Your task to perform on an android device: star an email in the gmail app Image 0: 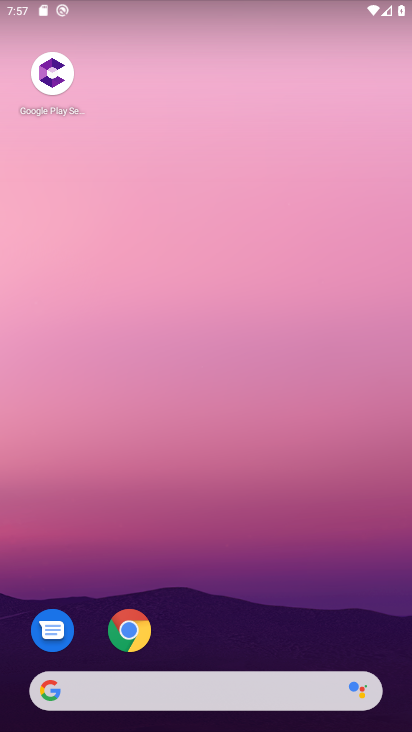
Step 0: drag from (188, 657) to (218, 256)
Your task to perform on an android device: star an email in the gmail app Image 1: 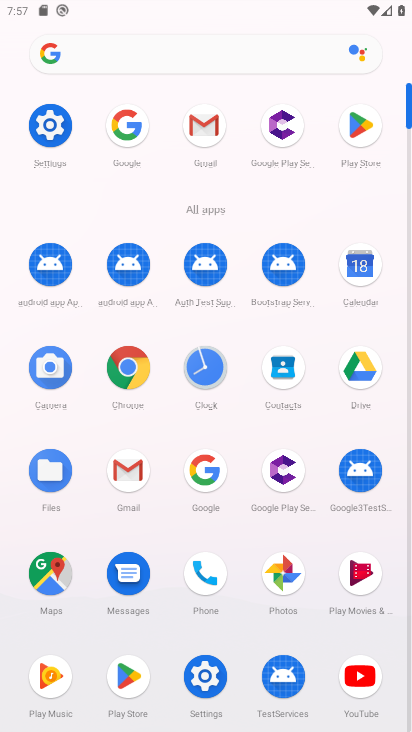
Step 1: click (203, 119)
Your task to perform on an android device: star an email in the gmail app Image 2: 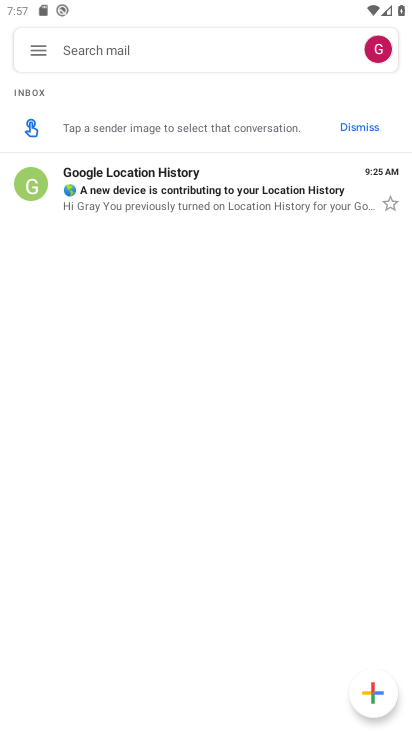
Step 2: click (386, 203)
Your task to perform on an android device: star an email in the gmail app Image 3: 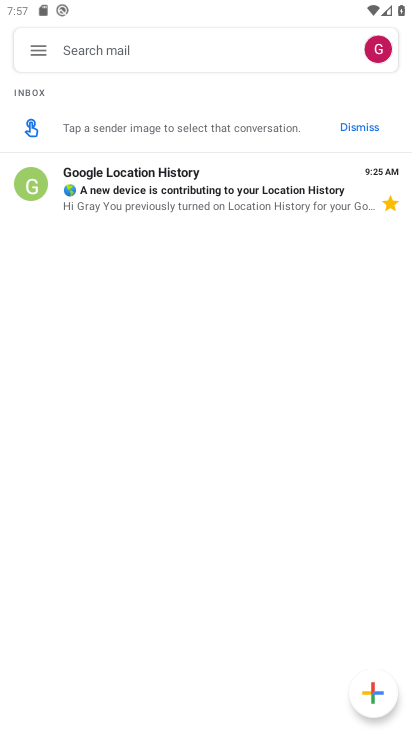
Step 3: task complete